Your task to perform on an android device: Open privacy settings Image 0: 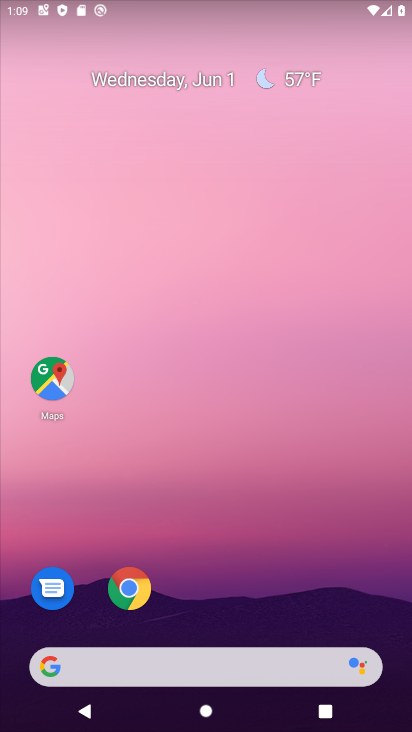
Step 0: press home button
Your task to perform on an android device: Open privacy settings Image 1: 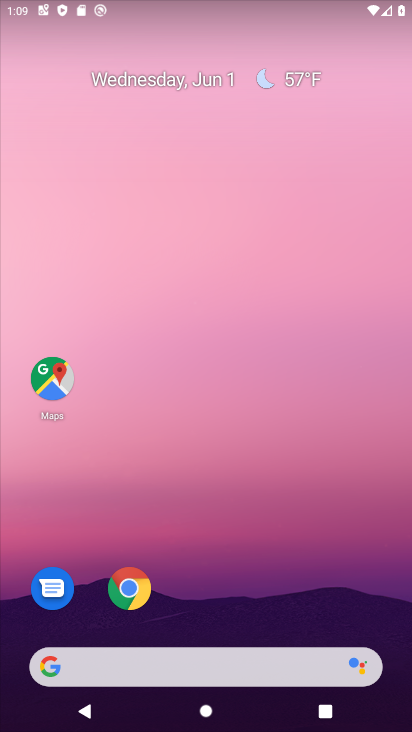
Step 1: drag from (259, 392) to (145, 33)
Your task to perform on an android device: Open privacy settings Image 2: 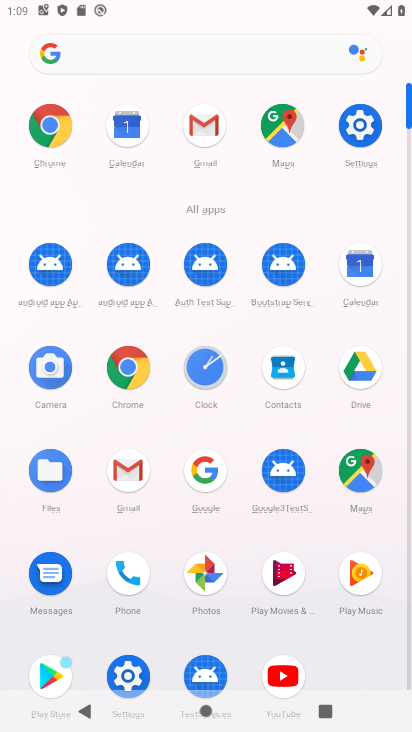
Step 2: click (350, 156)
Your task to perform on an android device: Open privacy settings Image 3: 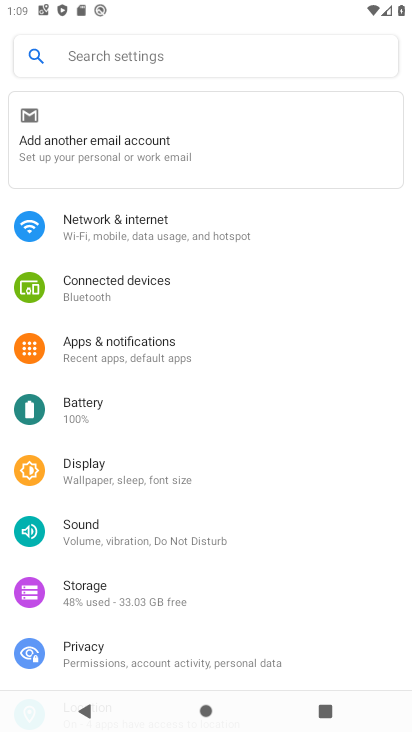
Step 3: drag from (210, 611) to (204, 393)
Your task to perform on an android device: Open privacy settings Image 4: 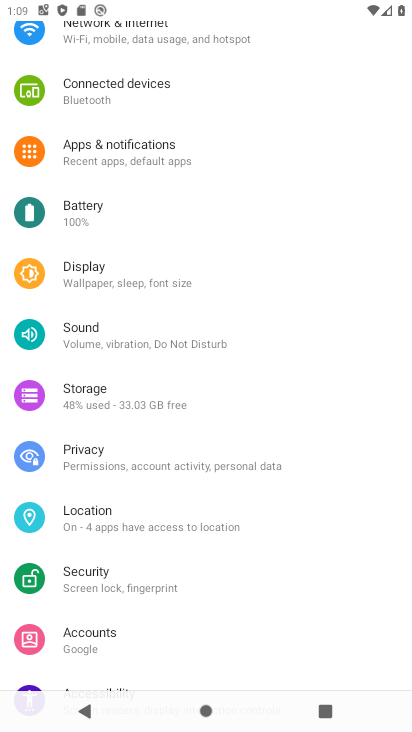
Step 4: click (112, 452)
Your task to perform on an android device: Open privacy settings Image 5: 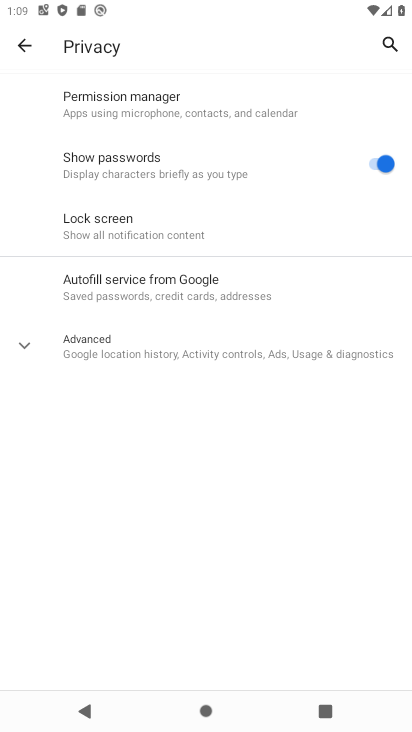
Step 5: task complete